Your task to perform on an android device: toggle translation in the chrome app Image 0: 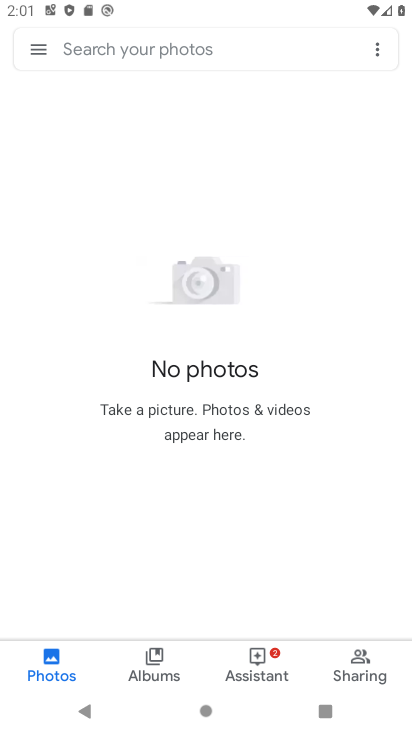
Step 0: press home button
Your task to perform on an android device: toggle translation in the chrome app Image 1: 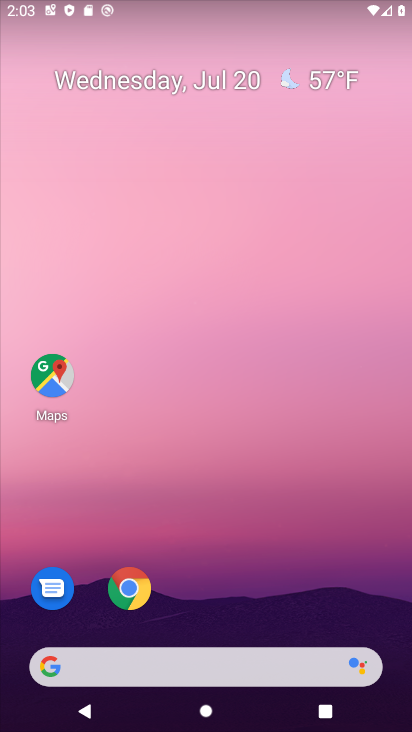
Step 1: drag from (294, 601) to (238, 0)
Your task to perform on an android device: toggle translation in the chrome app Image 2: 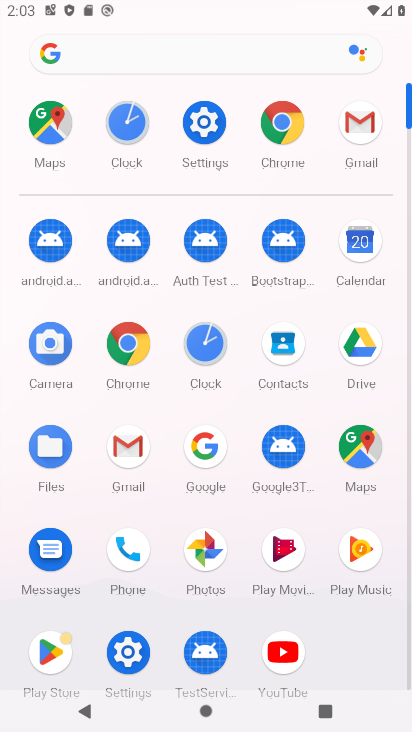
Step 2: click (135, 334)
Your task to perform on an android device: toggle translation in the chrome app Image 3: 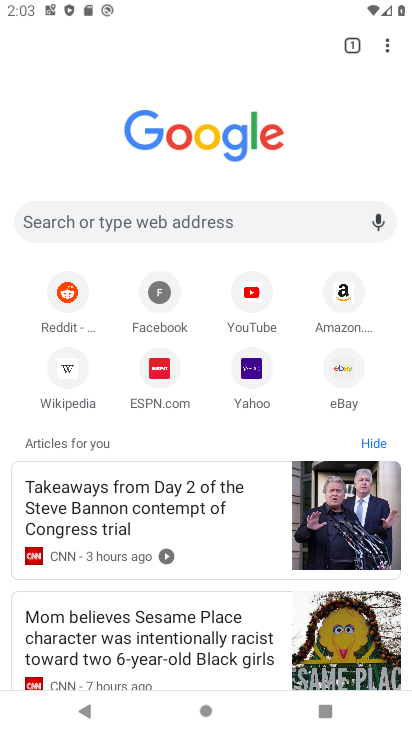
Step 3: click (385, 43)
Your task to perform on an android device: toggle translation in the chrome app Image 4: 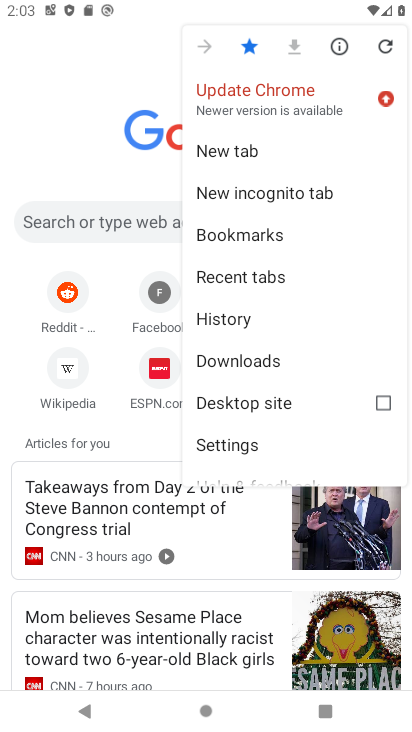
Step 4: click (235, 442)
Your task to perform on an android device: toggle translation in the chrome app Image 5: 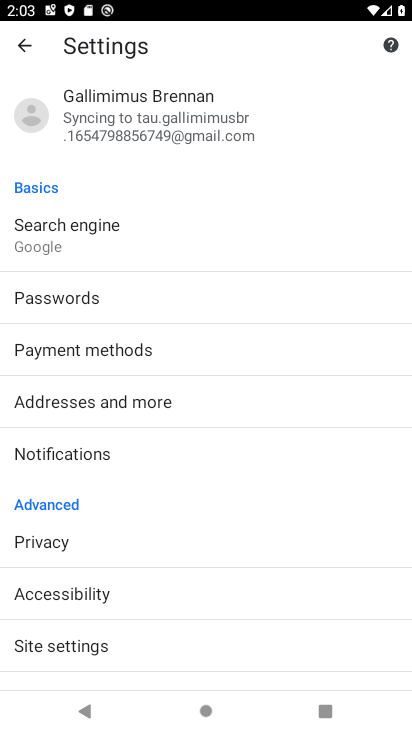
Step 5: drag from (97, 652) to (174, 248)
Your task to perform on an android device: toggle translation in the chrome app Image 6: 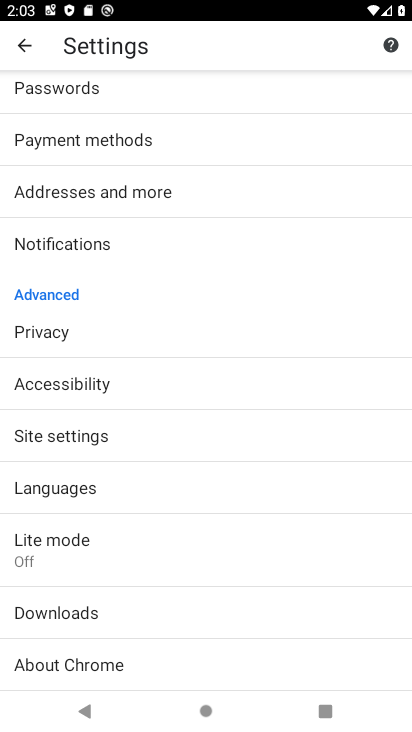
Step 6: click (72, 472)
Your task to perform on an android device: toggle translation in the chrome app Image 7: 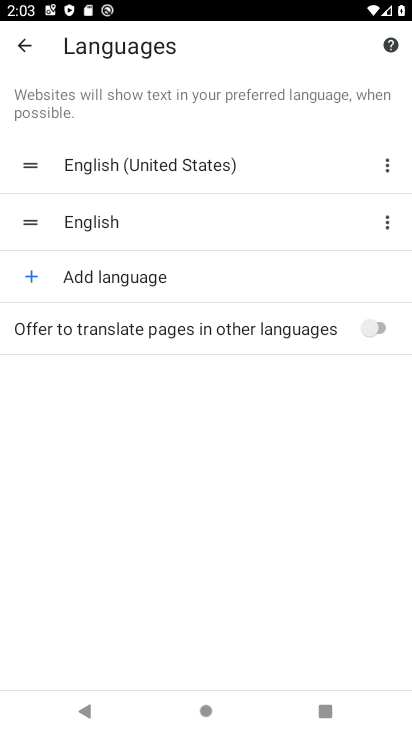
Step 7: click (351, 327)
Your task to perform on an android device: toggle translation in the chrome app Image 8: 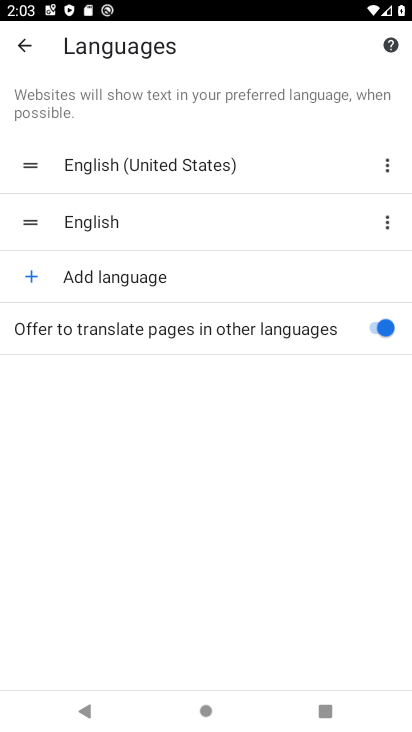
Step 8: task complete